Your task to perform on an android device: read, delete, or share a saved page in the chrome app Image 0: 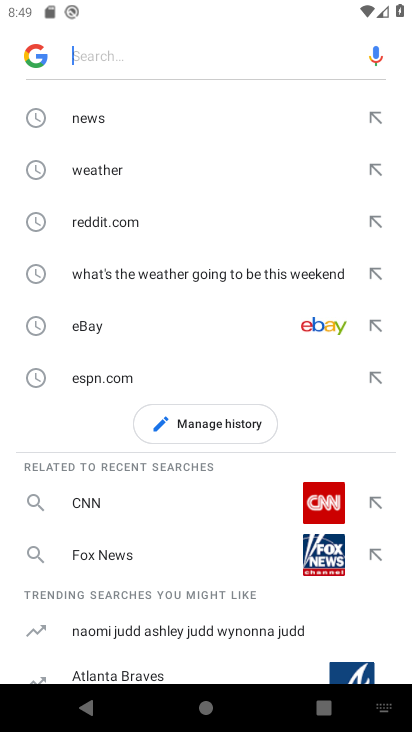
Step 0: press home button
Your task to perform on an android device: read, delete, or share a saved page in the chrome app Image 1: 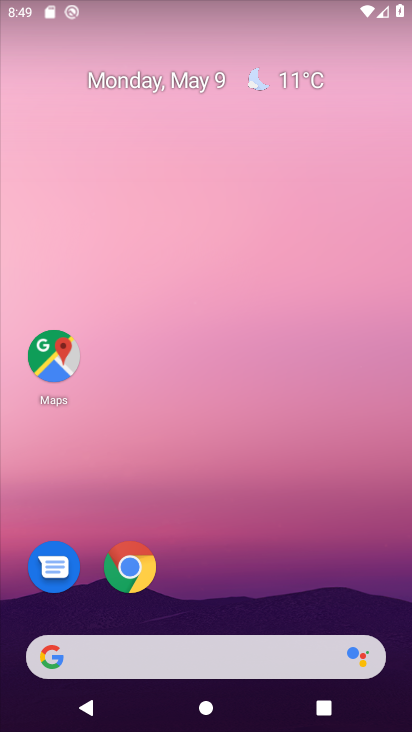
Step 1: click (119, 566)
Your task to perform on an android device: read, delete, or share a saved page in the chrome app Image 2: 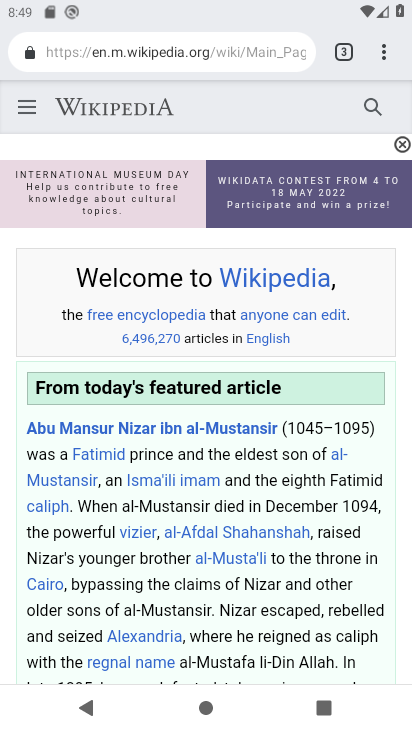
Step 2: click (380, 52)
Your task to perform on an android device: read, delete, or share a saved page in the chrome app Image 3: 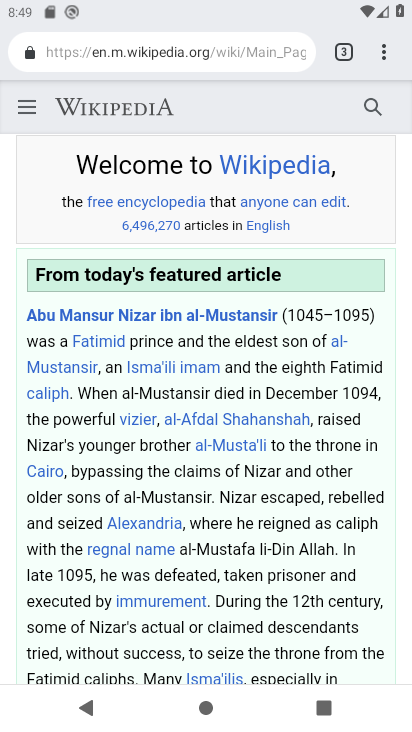
Step 3: click (380, 53)
Your task to perform on an android device: read, delete, or share a saved page in the chrome app Image 4: 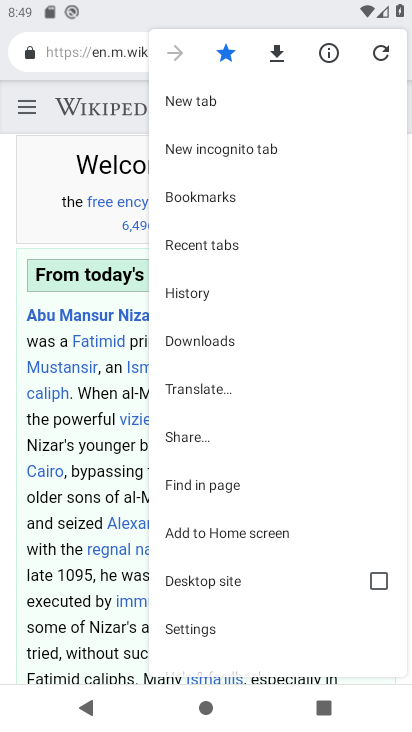
Step 4: click (250, 205)
Your task to perform on an android device: read, delete, or share a saved page in the chrome app Image 5: 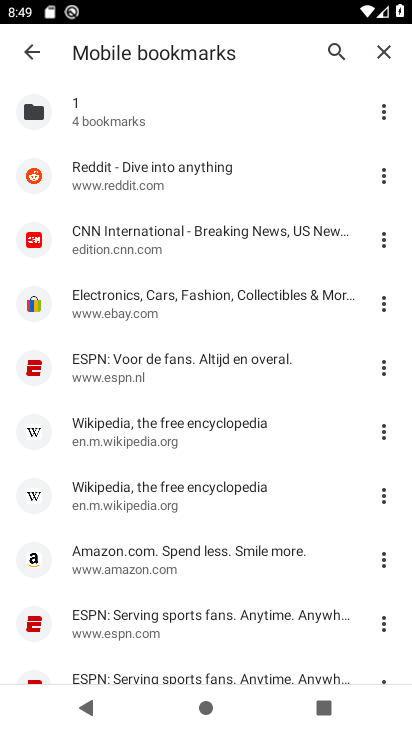
Step 5: click (384, 625)
Your task to perform on an android device: read, delete, or share a saved page in the chrome app Image 6: 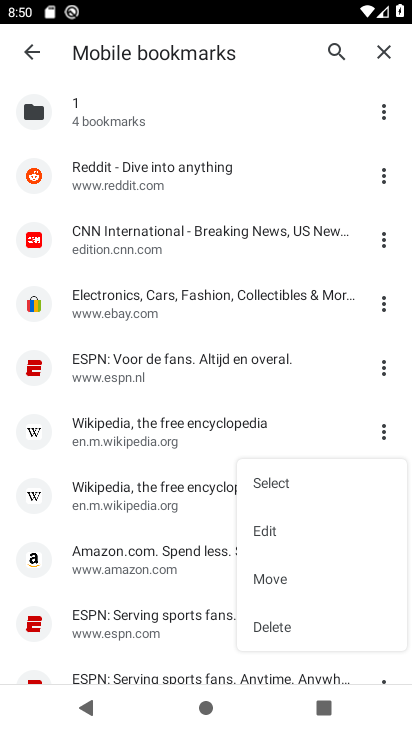
Step 6: click (298, 620)
Your task to perform on an android device: read, delete, or share a saved page in the chrome app Image 7: 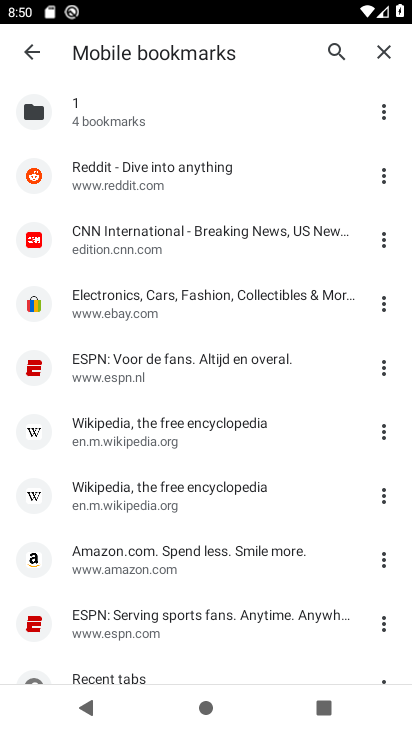
Step 7: task complete